Your task to perform on an android device: What's the weather today? Image 0: 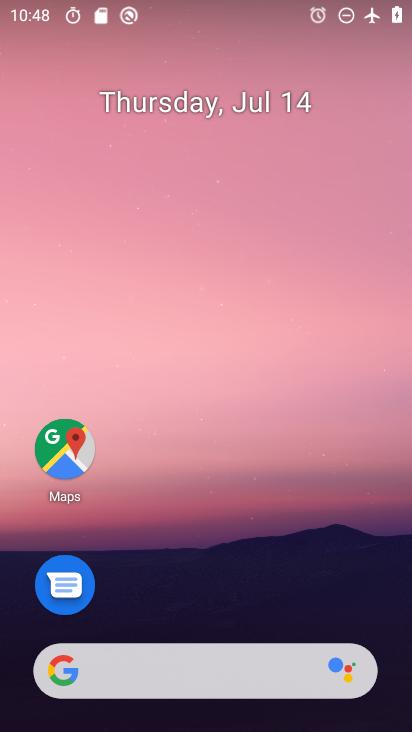
Step 0: click (236, 667)
Your task to perform on an android device: What's the weather today? Image 1: 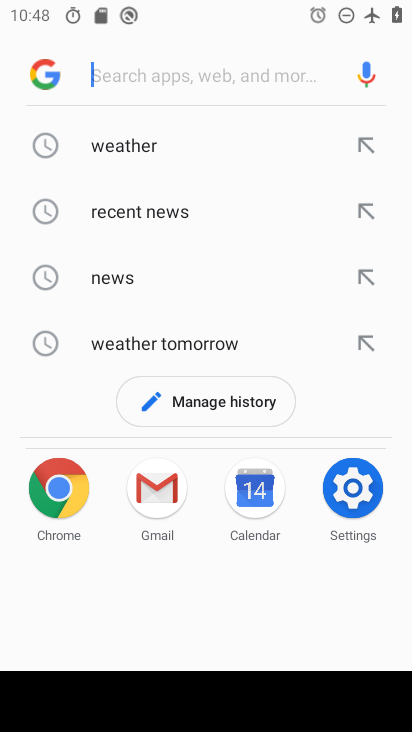
Step 1: click (72, 135)
Your task to perform on an android device: What's the weather today? Image 2: 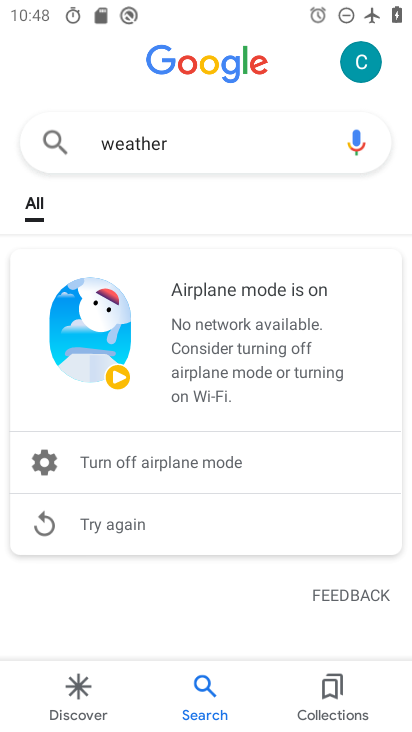
Step 2: task complete